Your task to perform on an android device: Open the phone app and click the voicemail tab. Image 0: 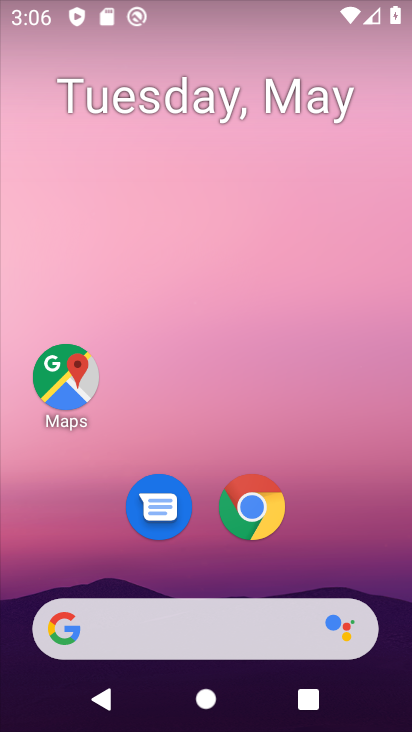
Step 0: drag from (207, 551) to (255, 85)
Your task to perform on an android device: Open the phone app and click the voicemail tab. Image 1: 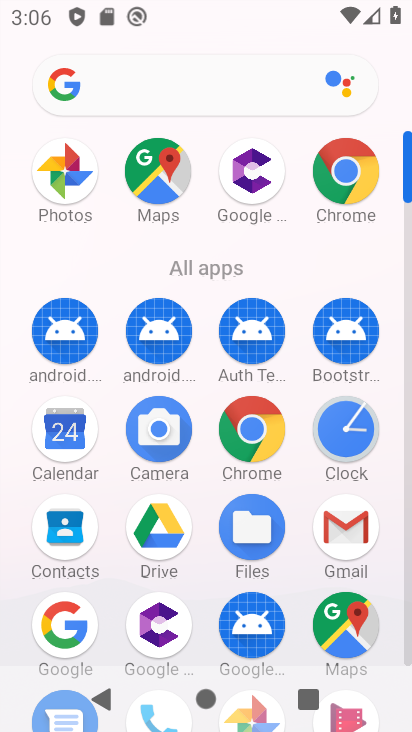
Step 1: drag from (198, 631) to (233, 322)
Your task to perform on an android device: Open the phone app and click the voicemail tab. Image 2: 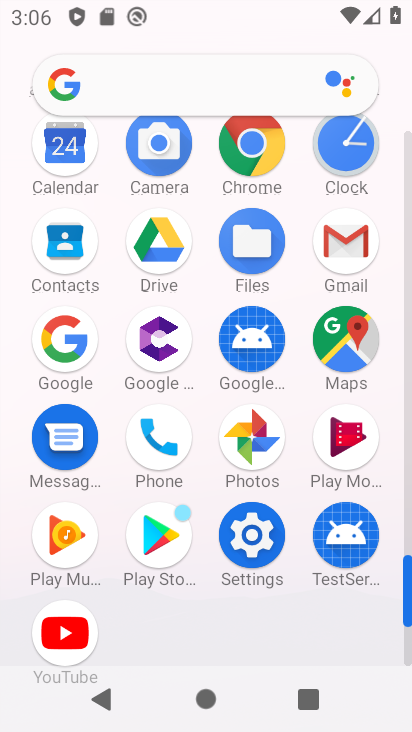
Step 2: click (161, 424)
Your task to perform on an android device: Open the phone app and click the voicemail tab. Image 3: 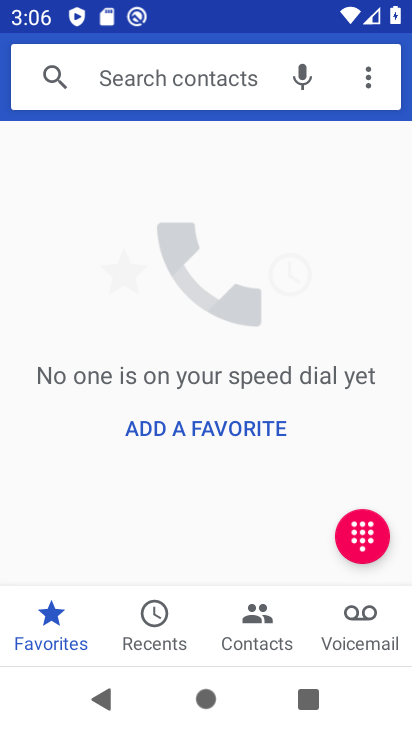
Step 3: click (371, 646)
Your task to perform on an android device: Open the phone app and click the voicemail tab. Image 4: 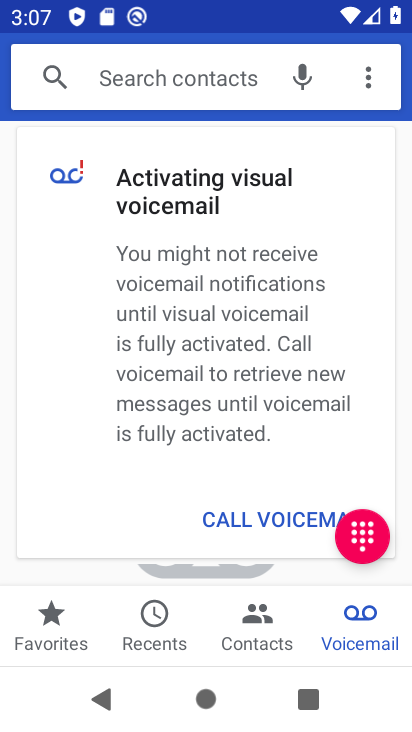
Step 4: task complete